Your task to perform on an android device: Open my contact list Image 0: 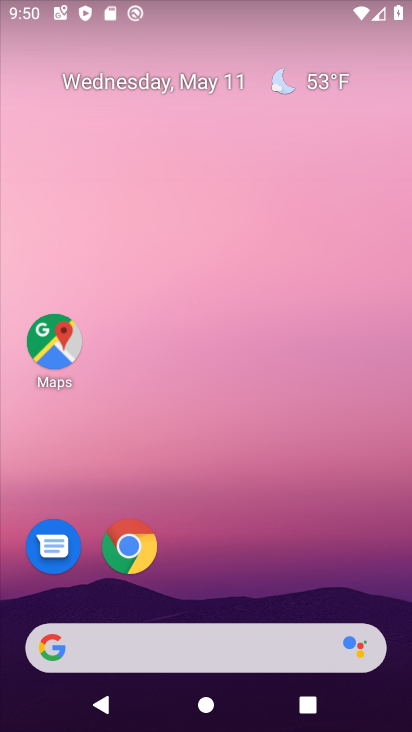
Step 0: drag from (396, 656) to (347, 86)
Your task to perform on an android device: Open my contact list Image 1: 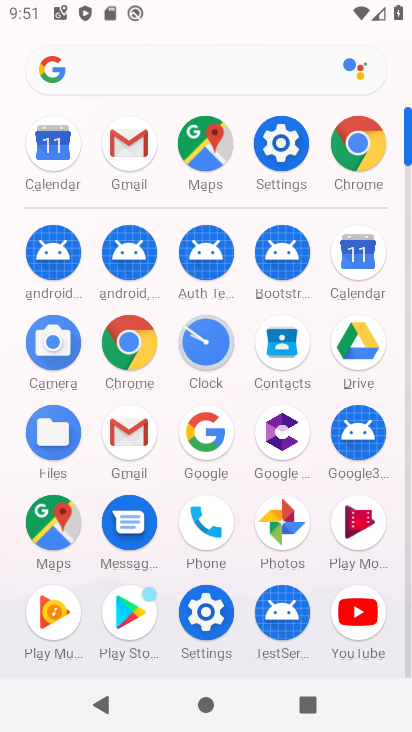
Step 1: click (214, 612)
Your task to perform on an android device: Open my contact list Image 2: 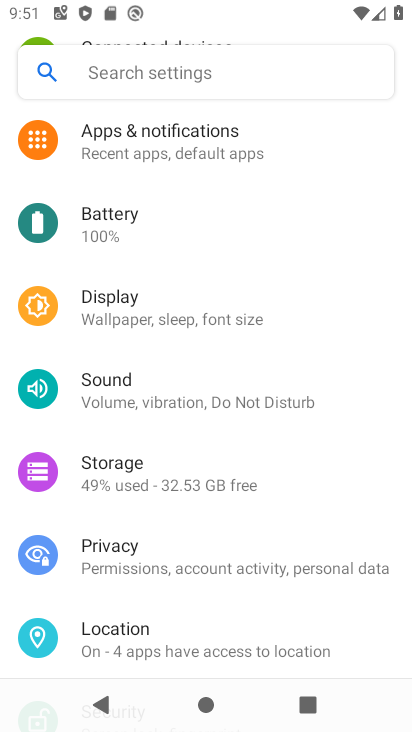
Step 2: press home button
Your task to perform on an android device: Open my contact list Image 3: 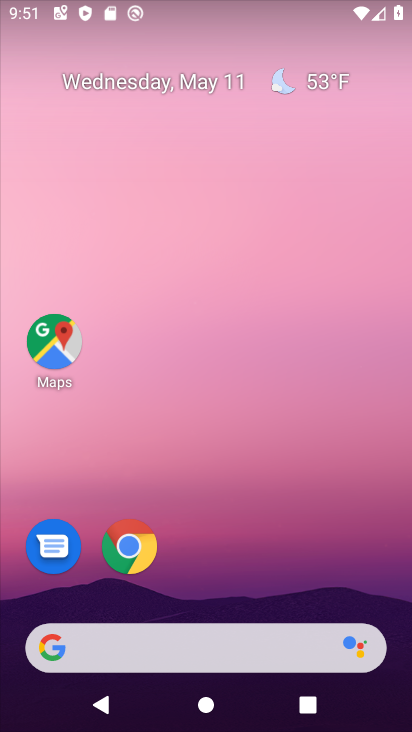
Step 3: drag from (200, 568) to (197, 80)
Your task to perform on an android device: Open my contact list Image 4: 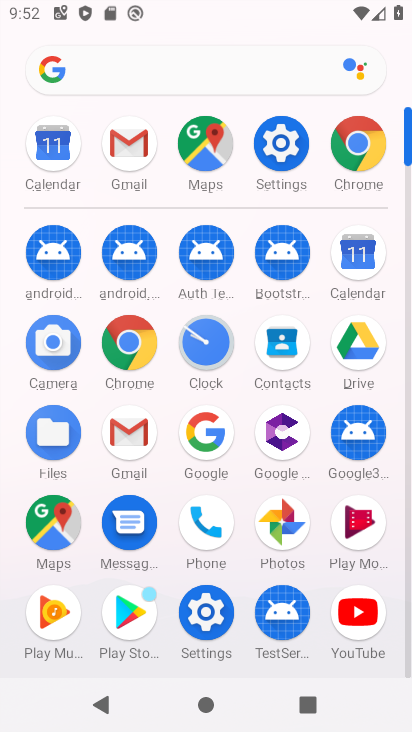
Step 4: click (293, 354)
Your task to perform on an android device: Open my contact list Image 5: 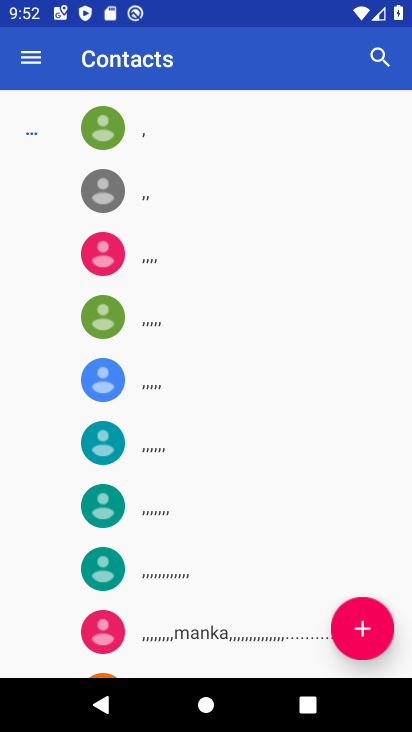
Step 5: task complete